Your task to perform on an android device: find which apps use the phone's location Image 0: 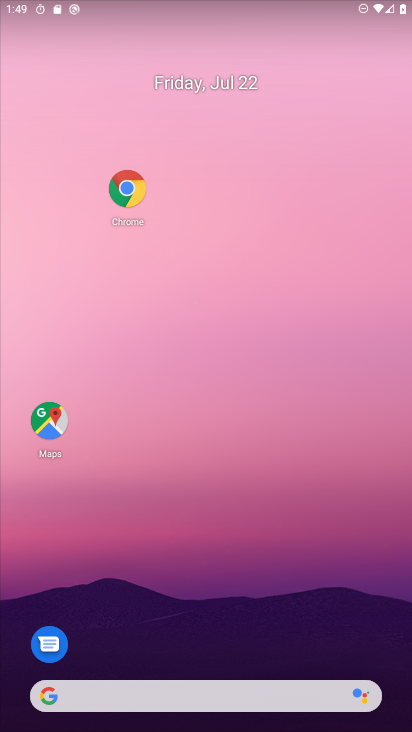
Step 0: task complete